Your task to perform on an android device: refresh tabs in the chrome app Image 0: 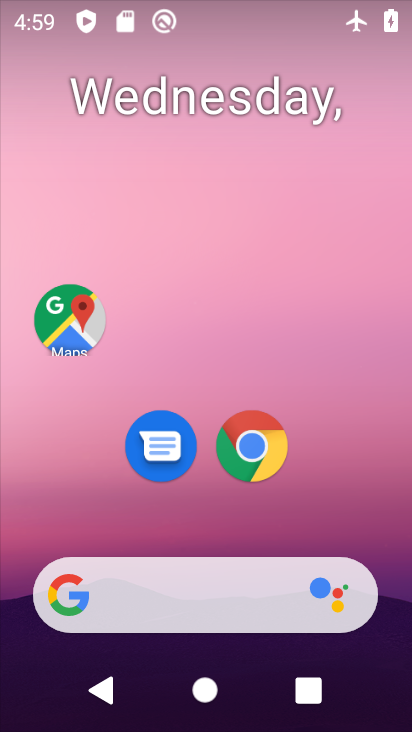
Step 0: click (242, 443)
Your task to perform on an android device: refresh tabs in the chrome app Image 1: 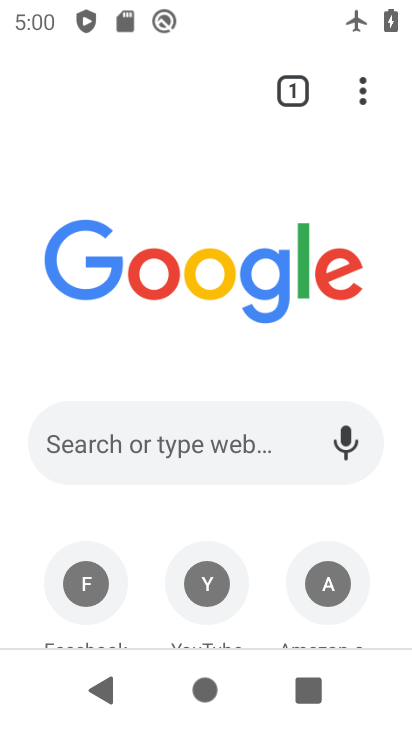
Step 1: click (364, 105)
Your task to perform on an android device: refresh tabs in the chrome app Image 2: 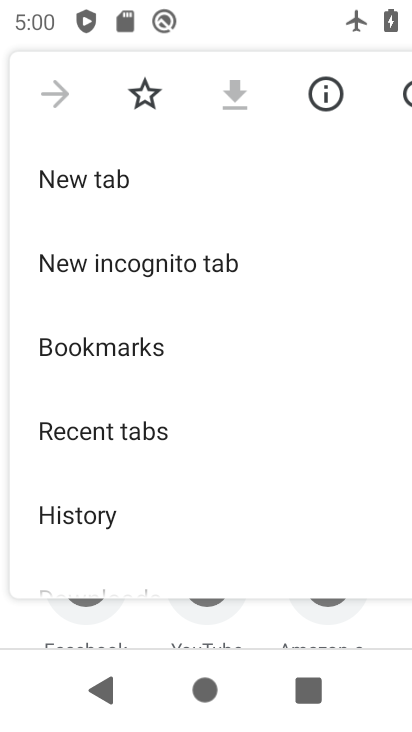
Step 2: click (392, 95)
Your task to perform on an android device: refresh tabs in the chrome app Image 3: 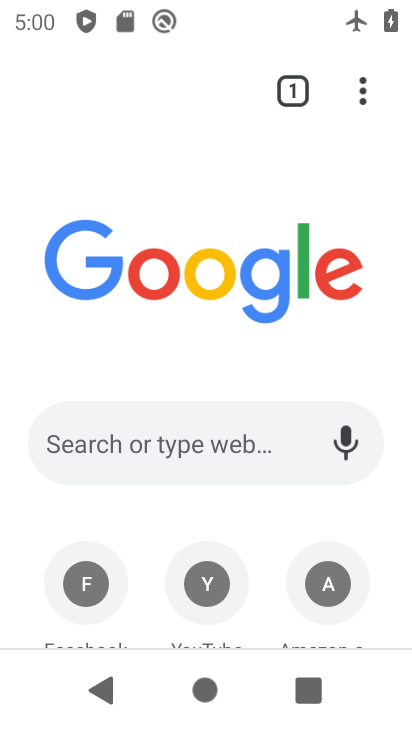
Step 3: task complete